Your task to perform on an android device: Open CNN.com Image 0: 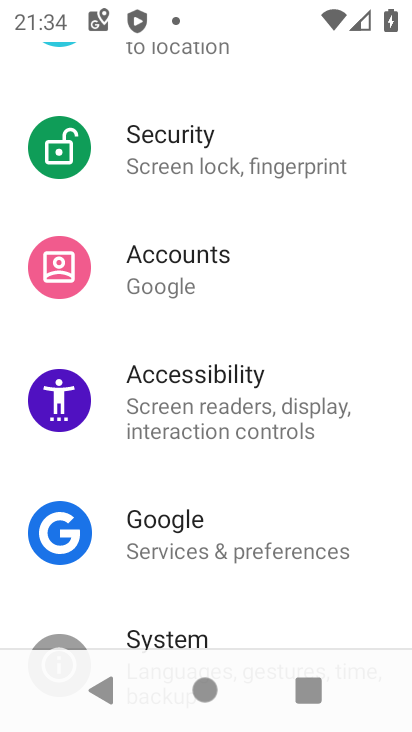
Step 0: press home button
Your task to perform on an android device: Open CNN.com Image 1: 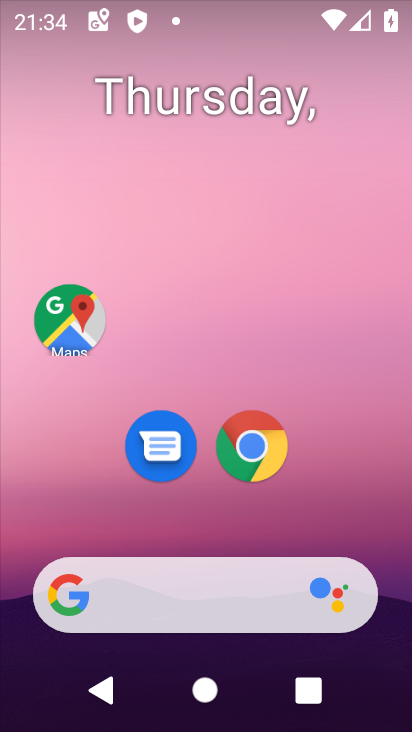
Step 1: click (248, 438)
Your task to perform on an android device: Open CNN.com Image 2: 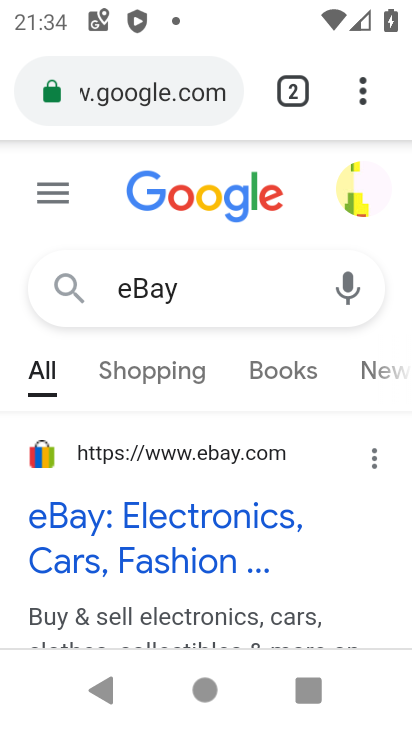
Step 2: click (105, 82)
Your task to perform on an android device: Open CNN.com Image 3: 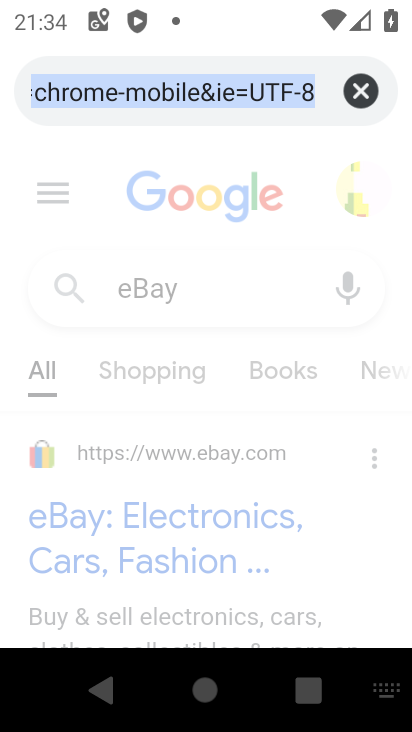
Step 3: click (359, 90)
Your task to perform on an android device: Open CNN.com Image 4: 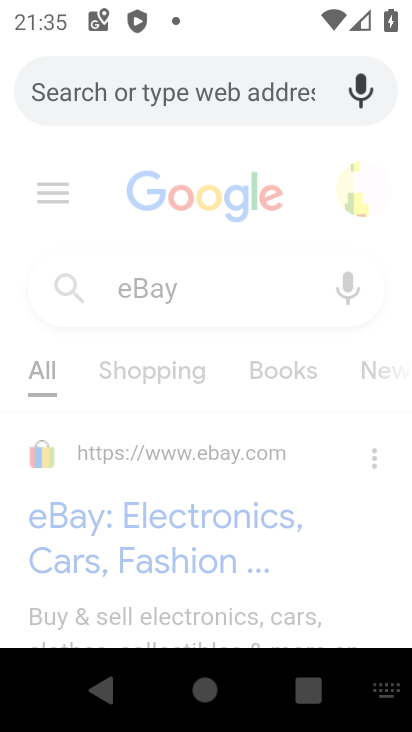
Step 4: type "CNN.com"
Your task to perform on an android device: Open CNN.com Image 5: 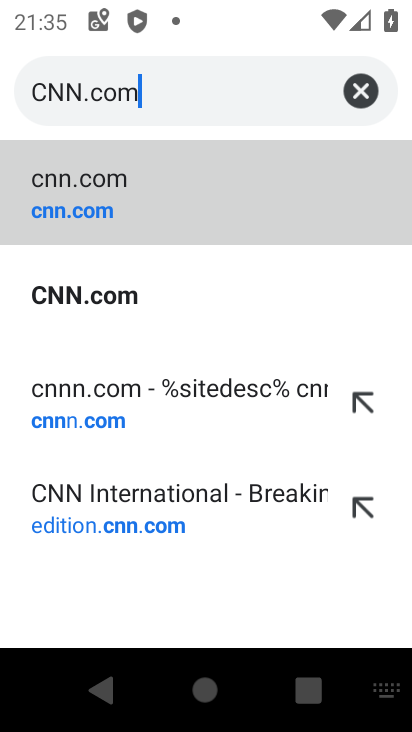
Step 5: type ""
Your task to perform on an android device: Open CNN.com Image 6: 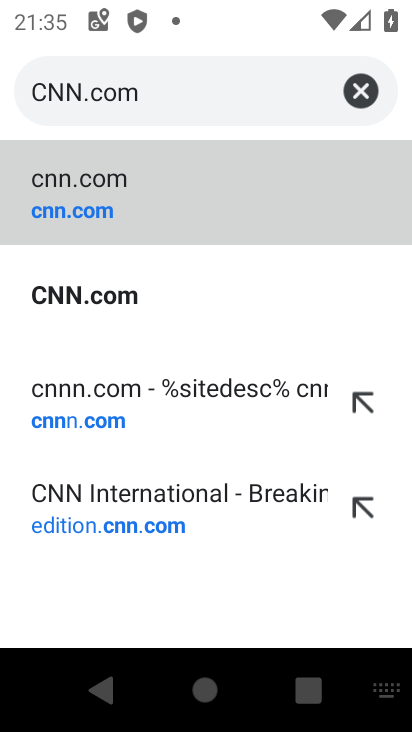
Step 6: click (300, 161)
Your task to perform on an android device: Open CNN.com Image 7: 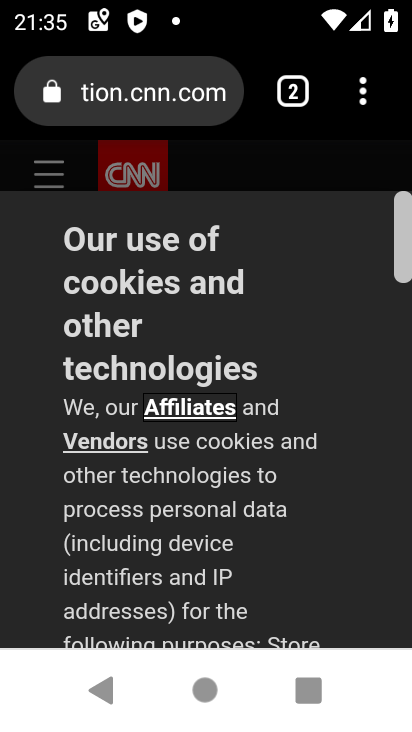
Step 7: task complete